Your task to perform on an android device: Open network settings Image 0: 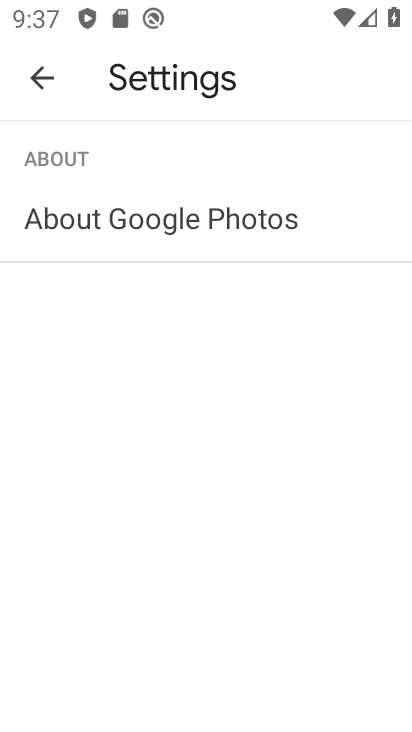
Step 0: press home button
Your task to perform on an android device: Open network settings Image 1: 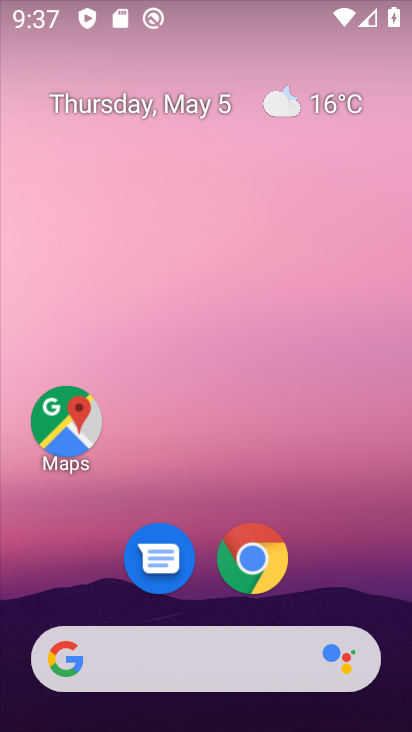
Step 1: drag from (326, 586) to (273, 233)
Your task to perform on an android device: Open network settings Image 2: 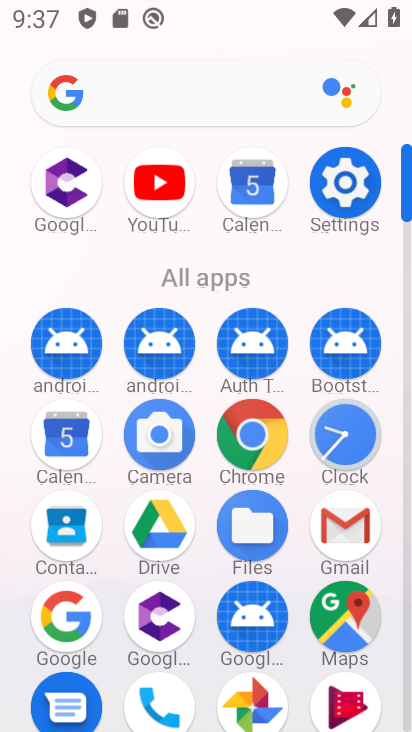
Step 2: click (343, 205)
Your task to perform on an android device: Open network settings Image 3: 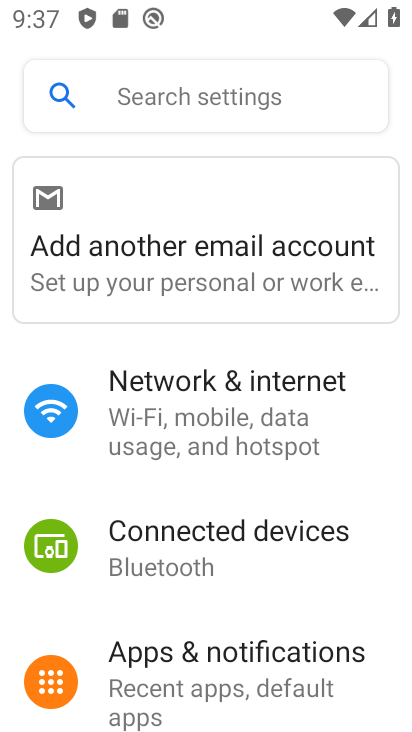
Step 3: click (249, 409)
Your task to perform on an android device: Open network settings Image 4: 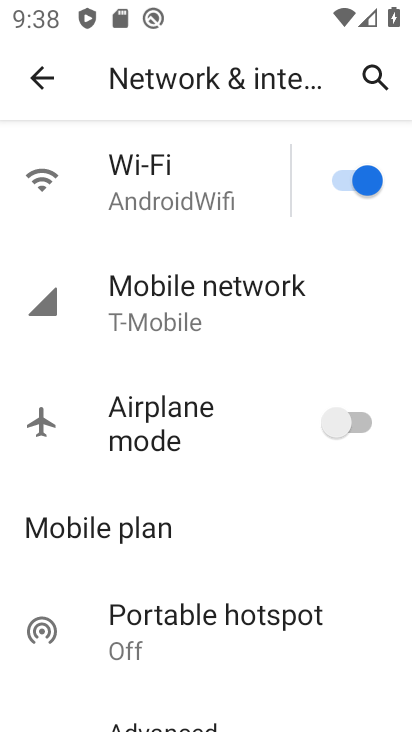
Step 4: task complete